Your task to perform on an android device: open a bookmark in the chrome app Image 0: 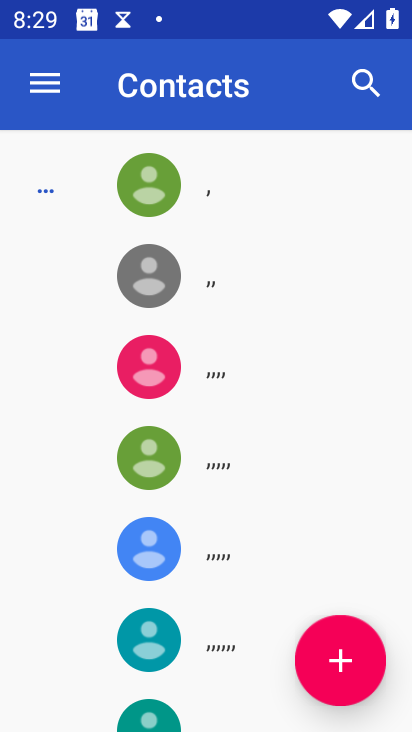
Step 0: press home button
Your task to perform on an android device: open a bookmark in the chrome app Image 1: 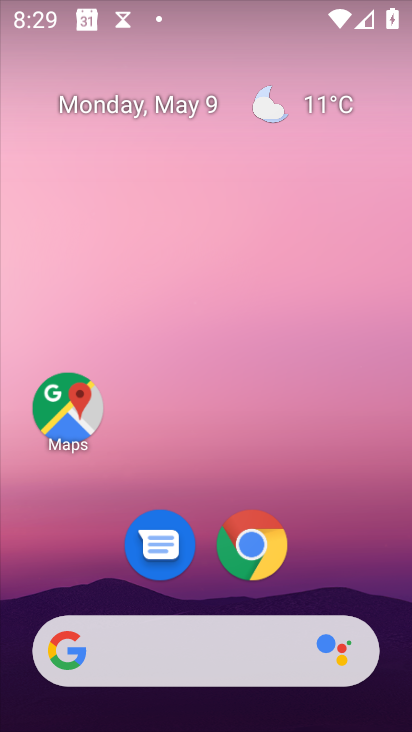
Step 1: click (255, 548)
Your task to perform on an android device: open a bookmark in the chrome app Image 2: 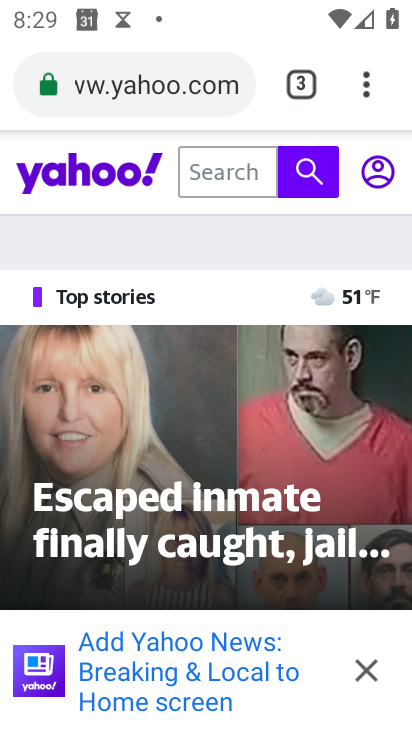
Step 2: click (366, 97)
Your task to perform on an android device: open a bookmark in the chrome app Image 3: 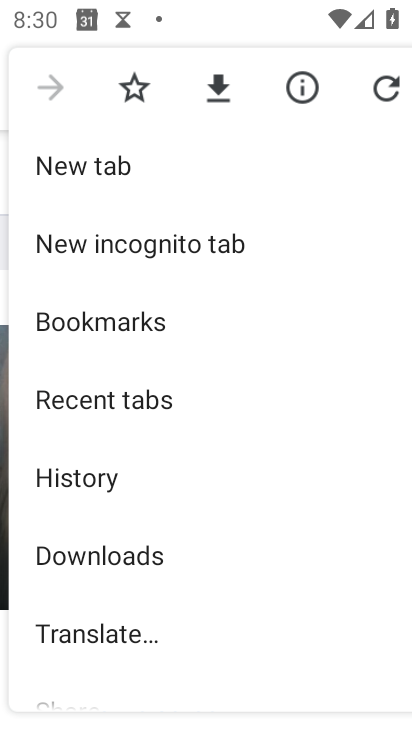
Step 3: click (109, 320)
Your task to perform on an android device: open a bookmark in the chrome app Image 4: 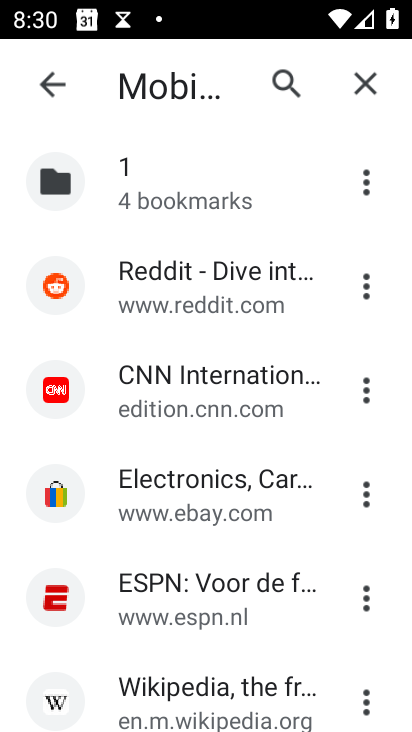
Step 4: click (158, 270)
Your task to perform on an android device: open a bookmark in the chrome app Image 5: 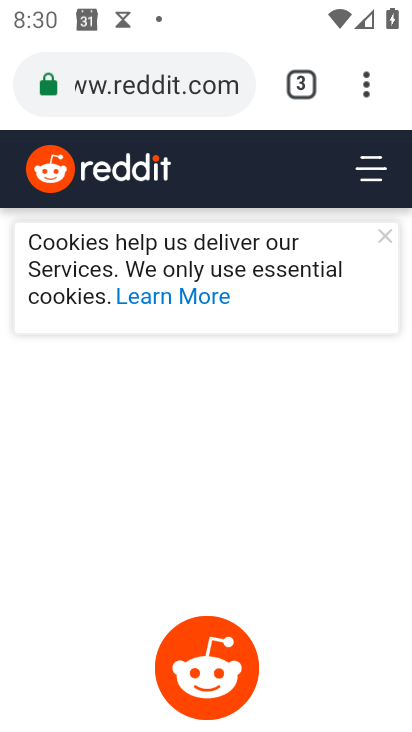
Step 5: task complete